Your task to perform on an android device: stop showing notifications on the lock screen Image 0: 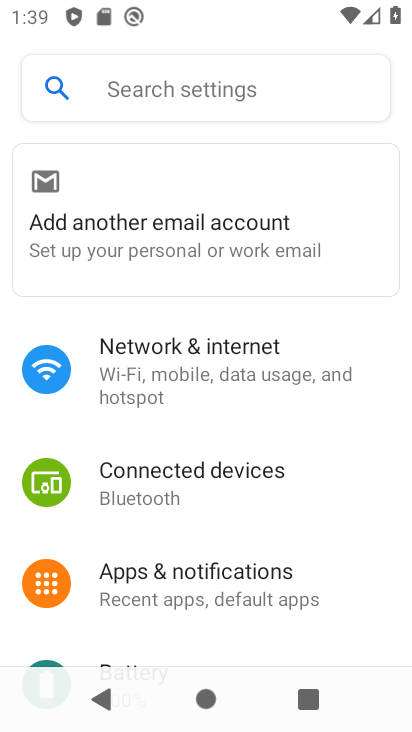
Step 0: drag from (228, 619) to (271, 483)
Your task to perform on an android device: stop showing notifications on the lock screen Image 1: 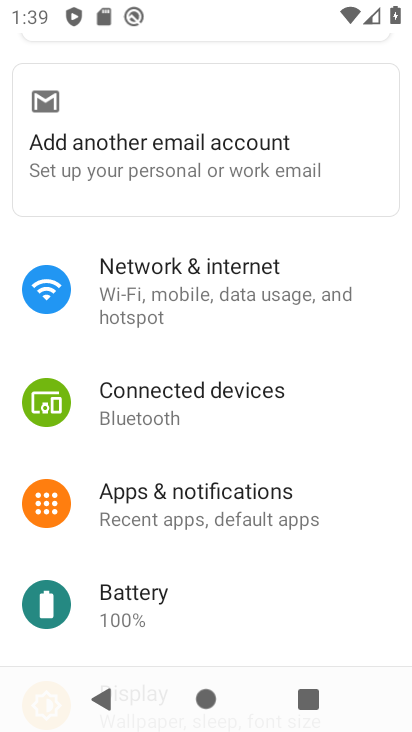
Step 1: click (253, 496)
Your task to perform on an android device: stop showing notifications on the lock screen Image 2: 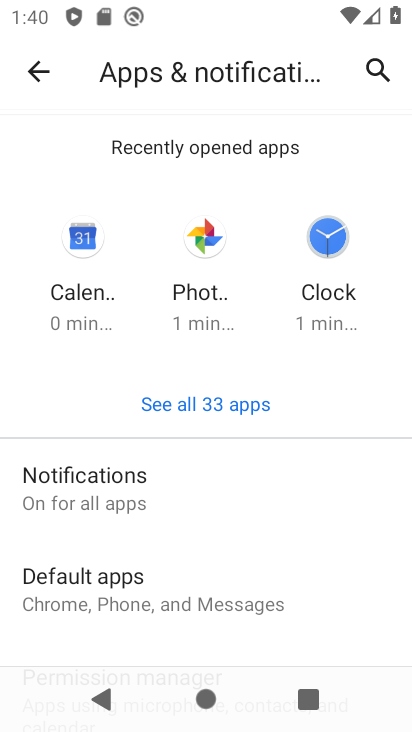
Step 2: click (170, 495)
Your task to perform on an android device: stop showing notifications on the lock screen Image 3: 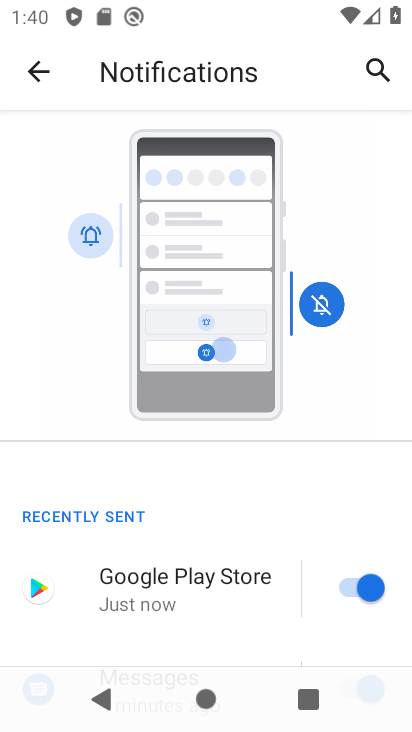
Step 3: drag from (137, 595) to (307, 129)
Your task to perform on an android device: stop showing notifications on the lock screen Image 4: 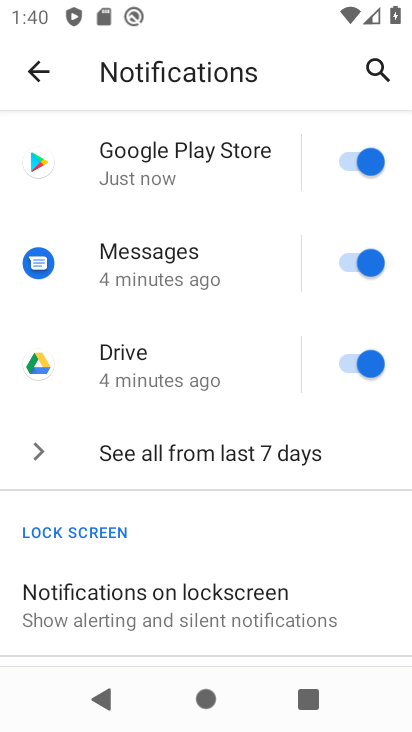
Step 4: click (194, 604)
Your task to perform on an android device: stop showing notifications on the lock screen Image 5: 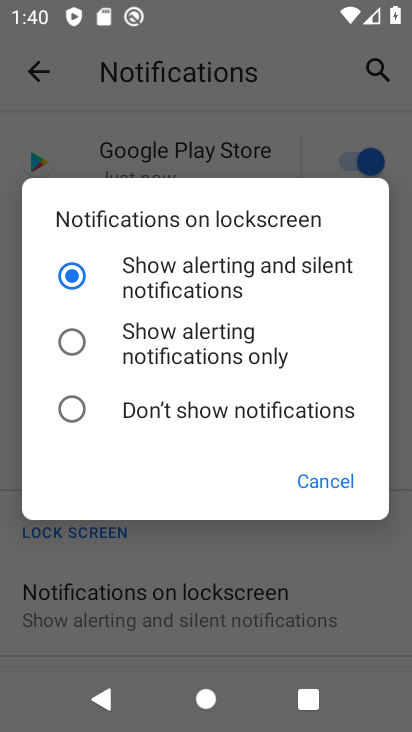
Step 5: click (206, 416)
Your task to perform on an android device: stop showing notifications on the lock screen Image 6: 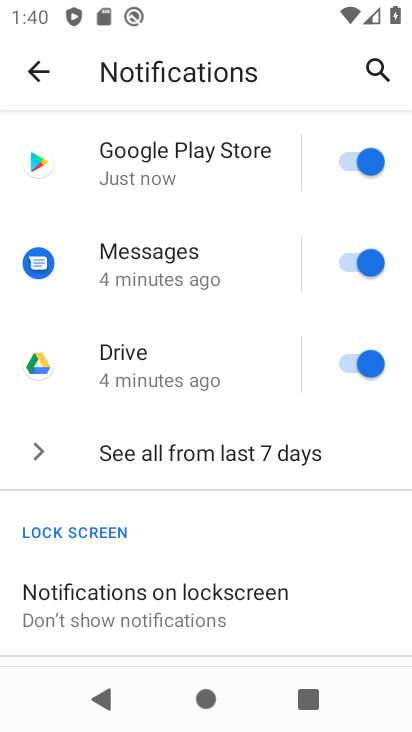
Step 6: task complete